Your task to perform on an android device: Go to Google maps Image 0: 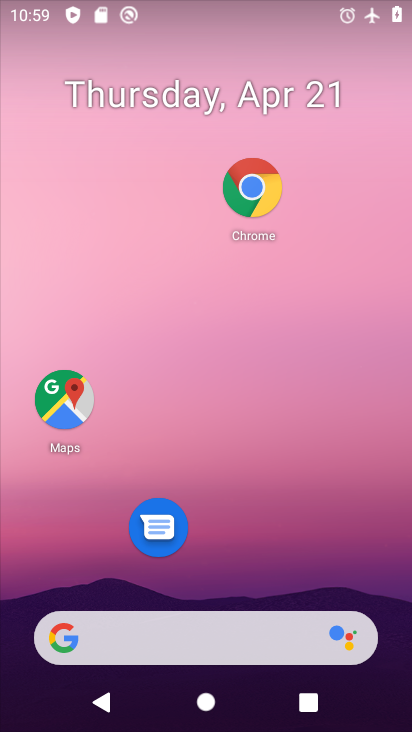
Step 0: drag from (247, 662) to (253, 305)
Your task to perform on an android device: Go to Google maps Image 1: 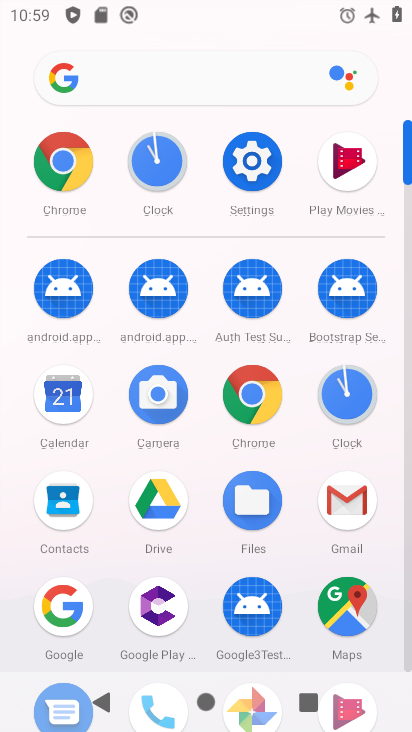
Step 1: click (356, 610)
Your task to perform on an android device: Go to Google maps Image 2: 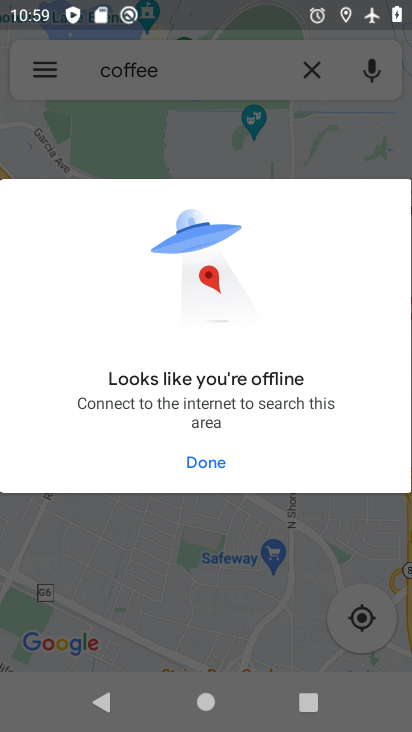
Step 2: click (195, 466)
Your task to perform on an android device: Go to Google maps Image 3: 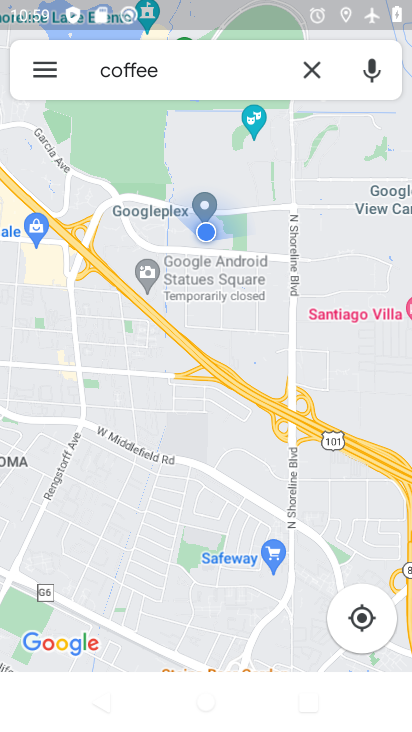
Step 3: task complete